Your task to perform on an android device: toggle javascript in the chrome app Image 0: 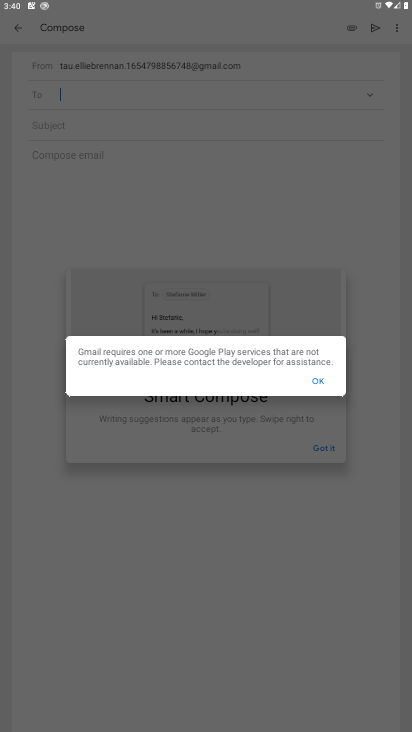
Step 0: press home button
Your task to perform on an android device: toggle javascript in the chrome app Image 1: 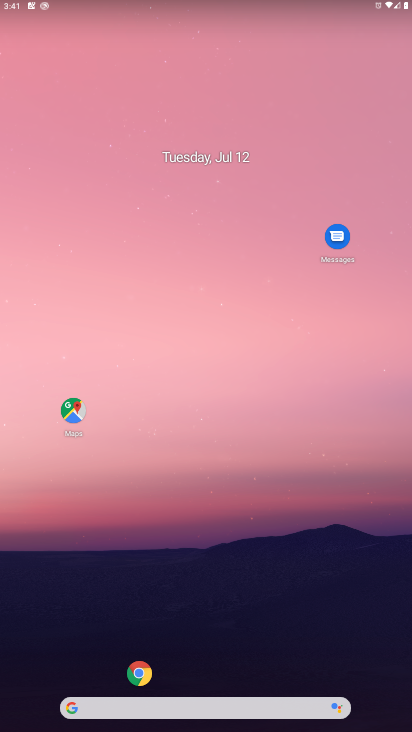
Step 1: click (140, 674)
Your task to perform on an android device: toggle javascript in the chrome app Image 2: 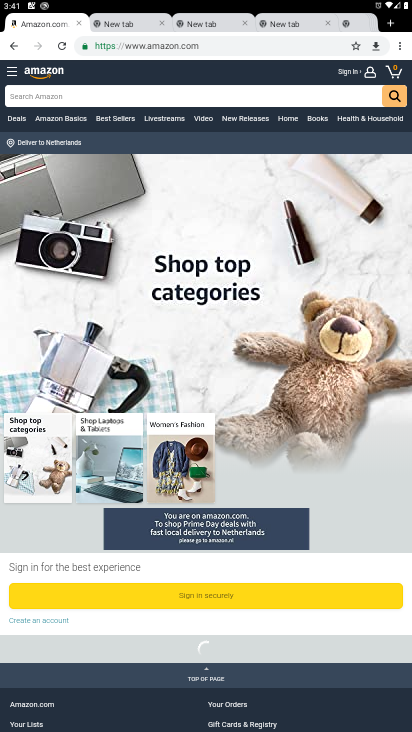
Step 2: click (399, 42)
Your task to perform on an android device: toggle javascript in the chrome app Image 3: 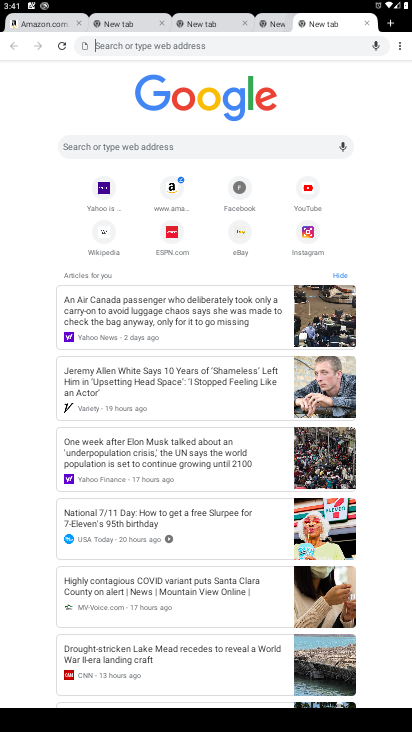
Step 3: click (393, 43)
Your task to perform on an android device: toggle javascript in the chrome app Image 4: 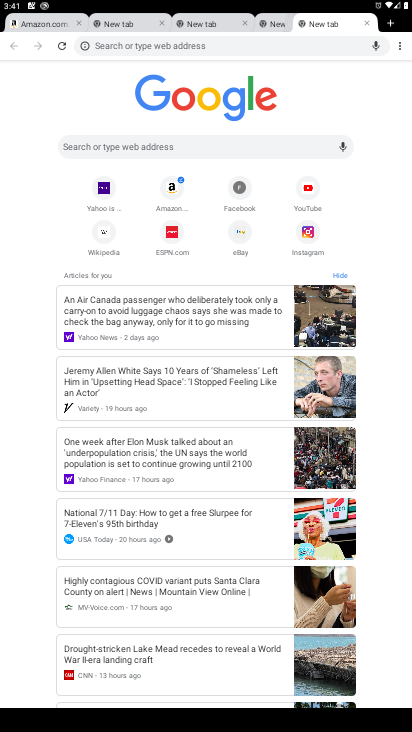
Step 4: task complete